Your task to perform on an android device: read, delete, or share a saved page in the chrome app Image 0: 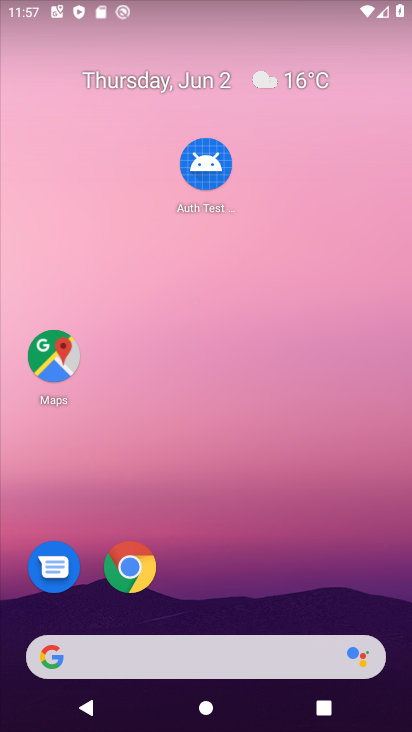
Step 0: click (125, 568)
Your task to perform on an android device: read, delete, or share a saved page in the chrome app Image 1: 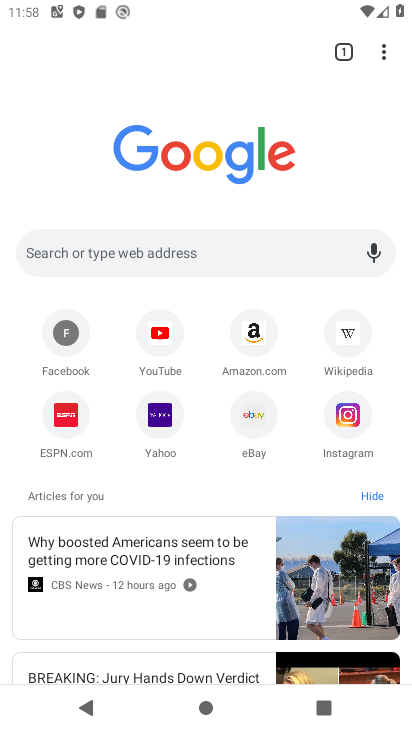
Step 1: click (390, 53)
Your task to perform on an android device: read, delete, or share a saved page in the chrome app Image 2: 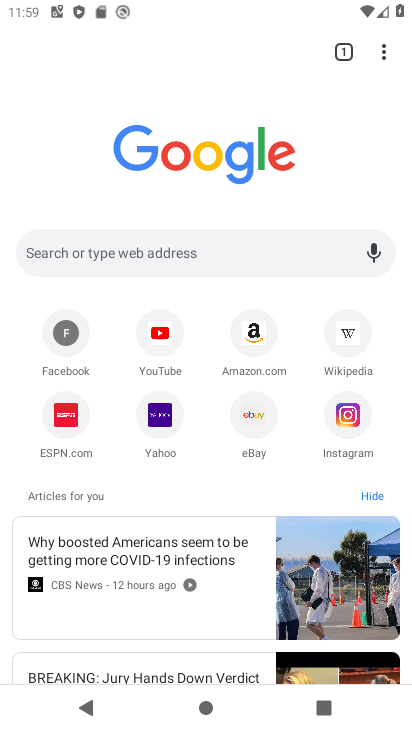
Step 2: click (387, 62)
Your task to perform on an android device: read, delete, or share a saved page in the chrome app Image 3: 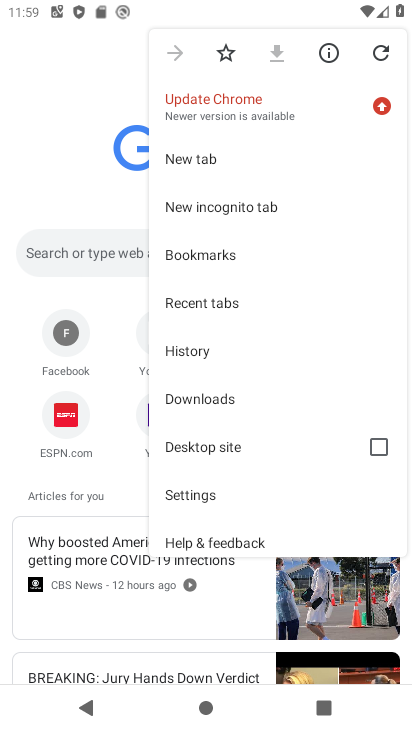
Step 3: click (211, 491)
Your task to perform on an android device: read, delete, or share a saved page in the chrome app Image 4: 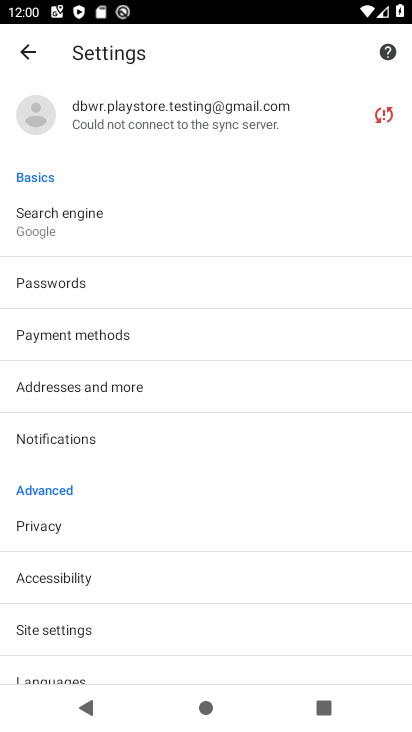
Step 4: drag from (155, 513) to (174, 147)
Your task to perform on an android device: read, delete, or share a saved page in the chrome app Image 5: 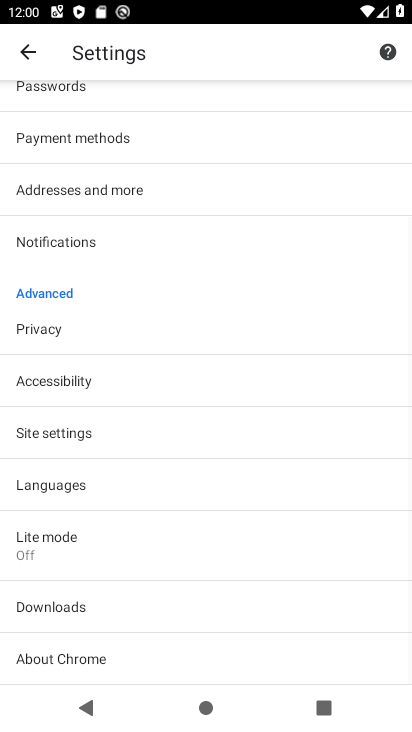
Step 5: click (89, 600)
Your task to perform on an android device: read, delete, or share a saved page in the chrome app Image 6: 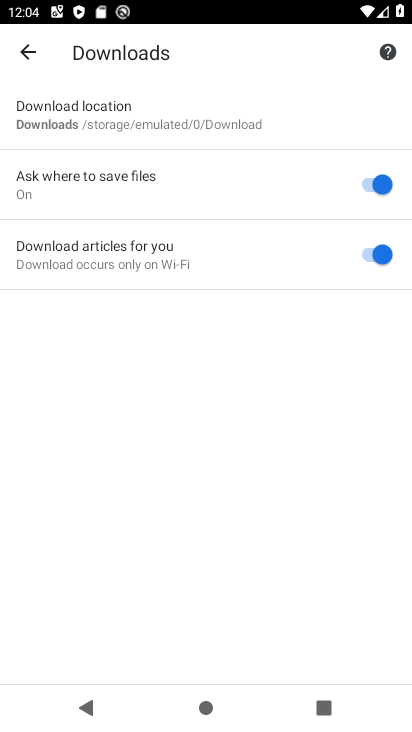
Step 6: task complete